Your task to perform on an android device: check google app version Image 0: 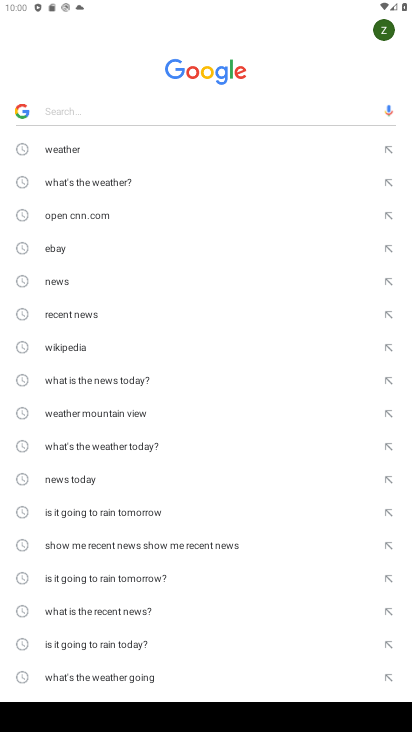
Step 0: task complete